Your task to perform on an android device: Open Amazon Image 0: 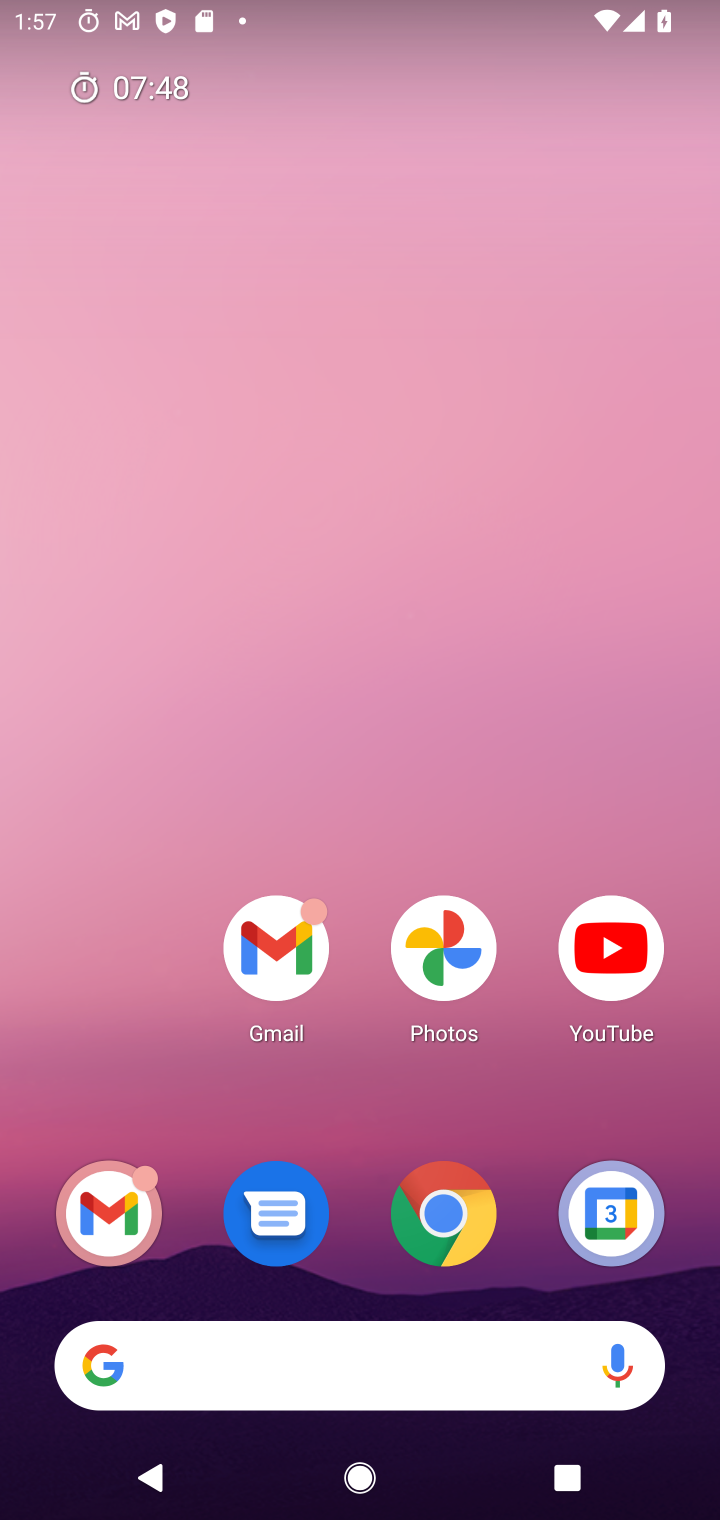
Step 0: drag from (470, 1361) to (419, 18)
Your task to perform on an android device: Open Amazon Image 1: 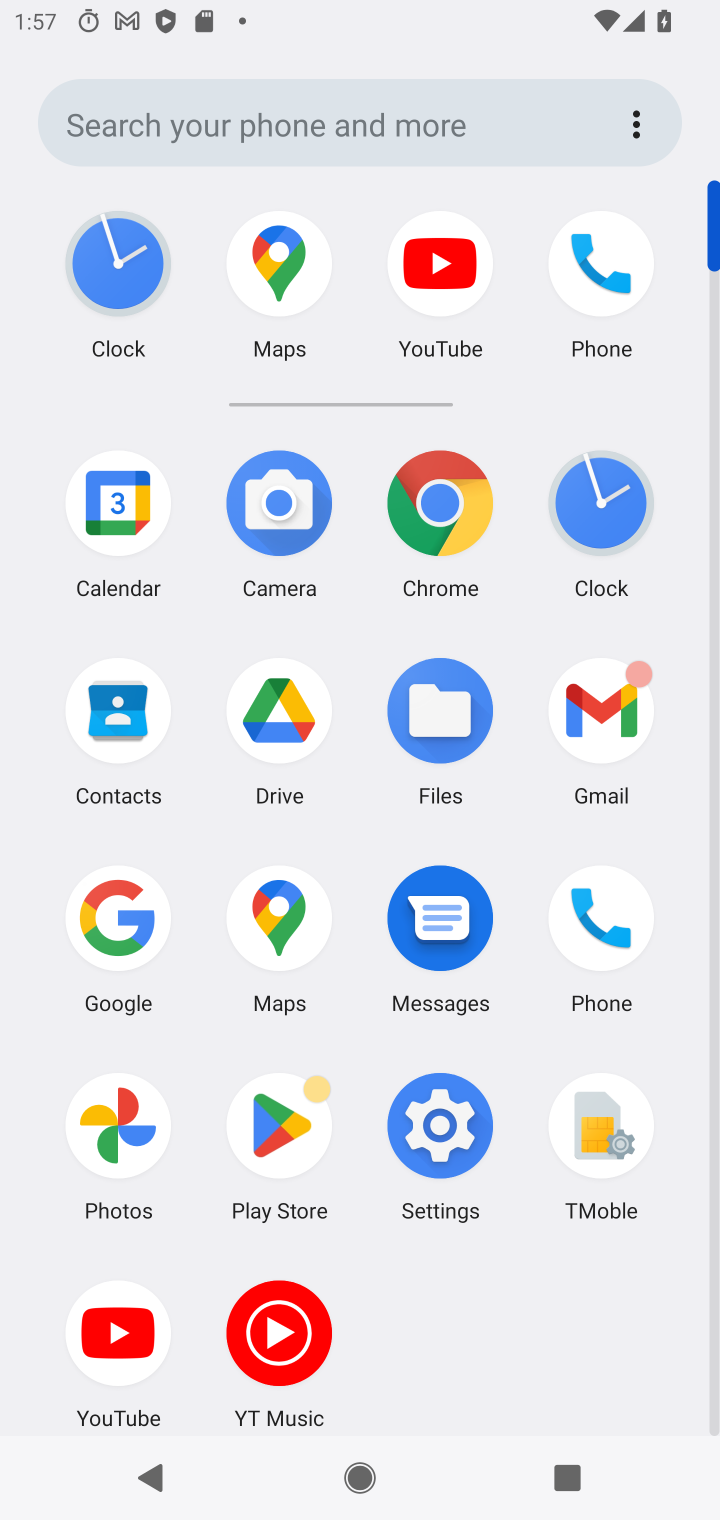
Step 1: click (417, 503)
Your task to perform on an android device: Open Amazon Image 2: 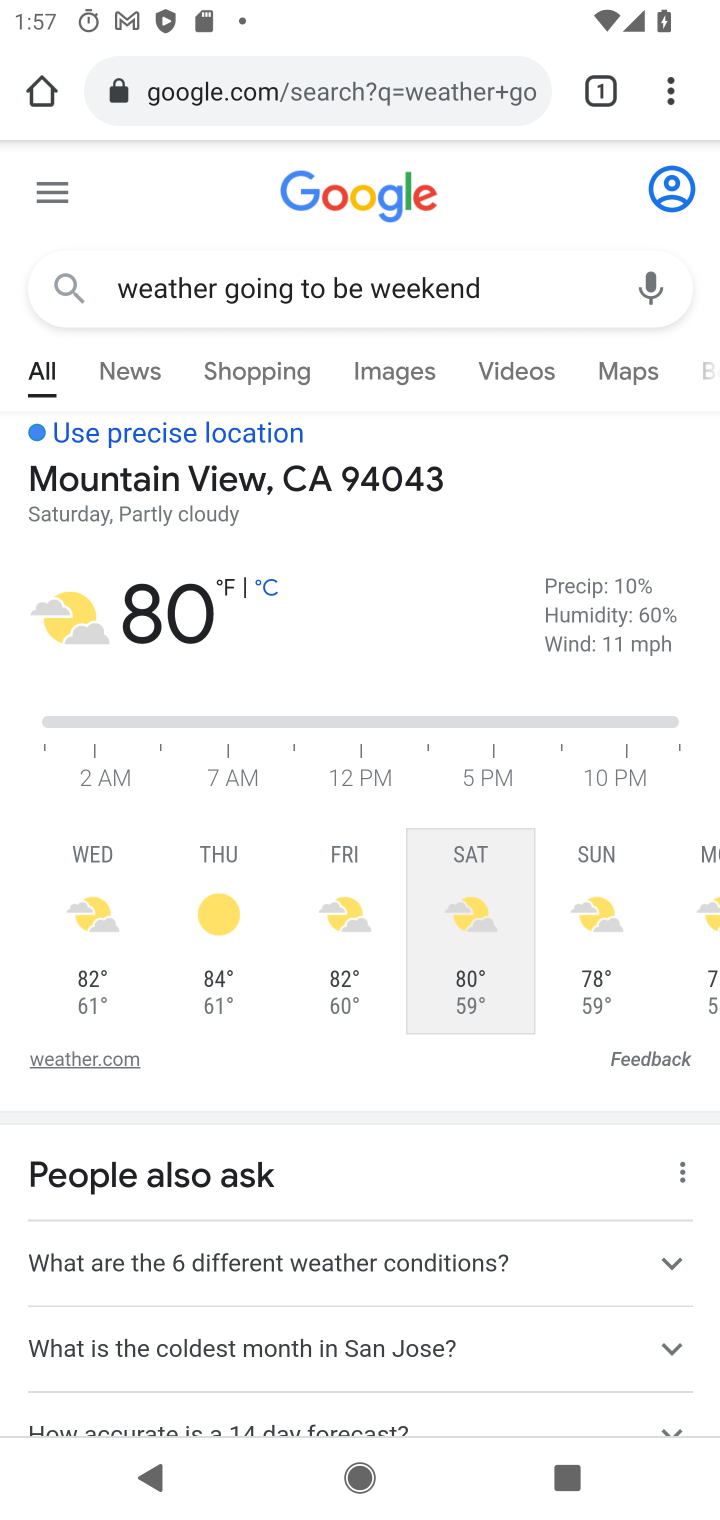
Step 2: drag from (662, 93) to (451, 275)
Your task to perform on an android device: Open Amazon Image 3: 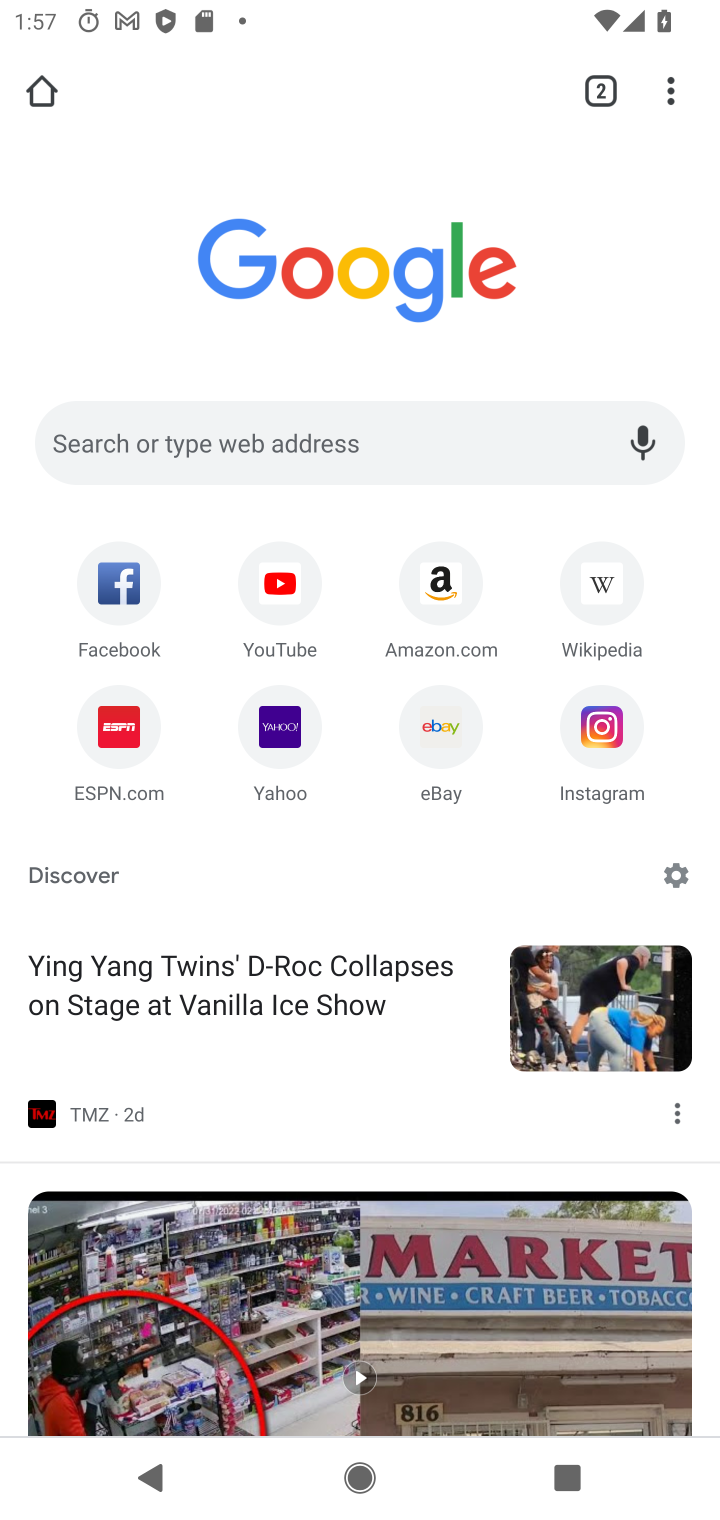
Step 3: click (451, 588)
Your task to perform on an android device: Open Amazon Image 4: 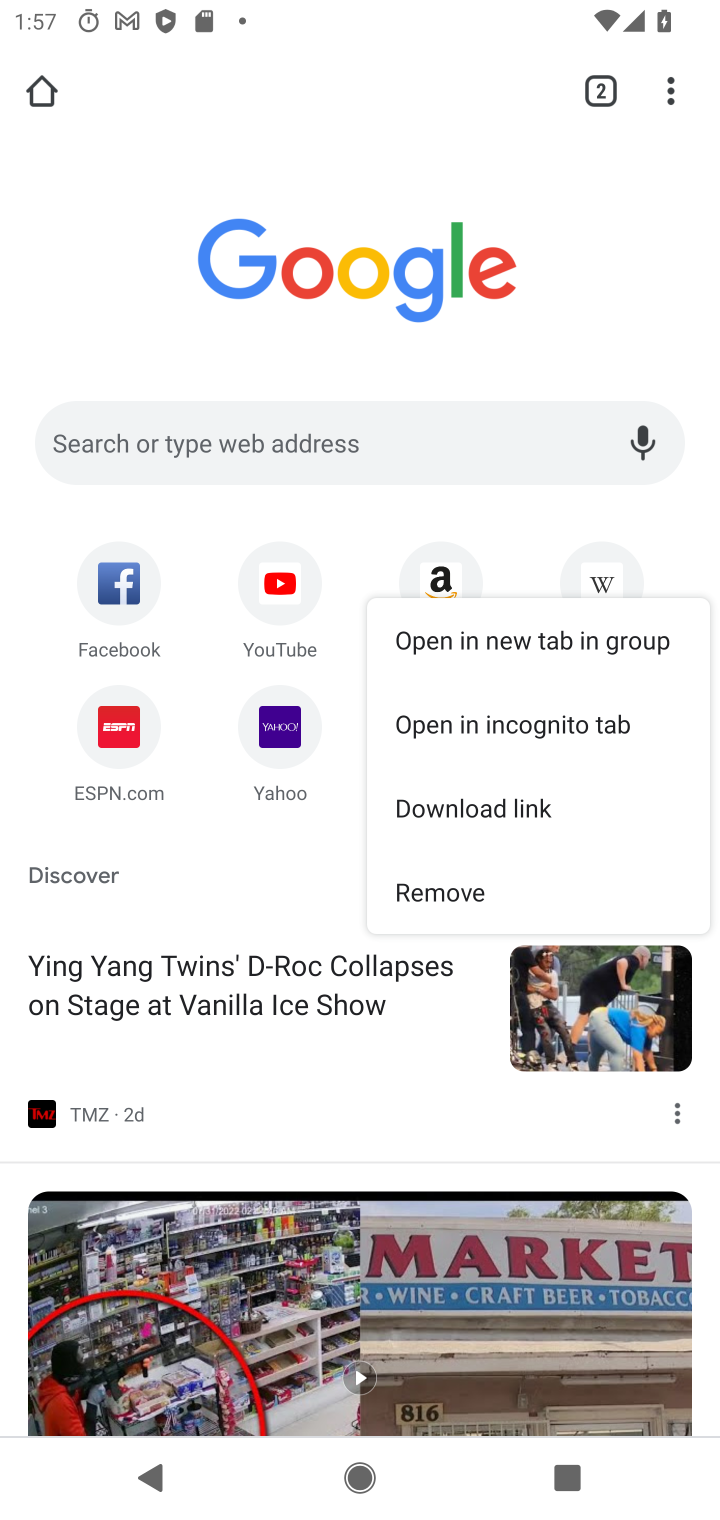
Step 4: click (452, 579)
Your task to perform on an android device: Open Amazon Image 5: 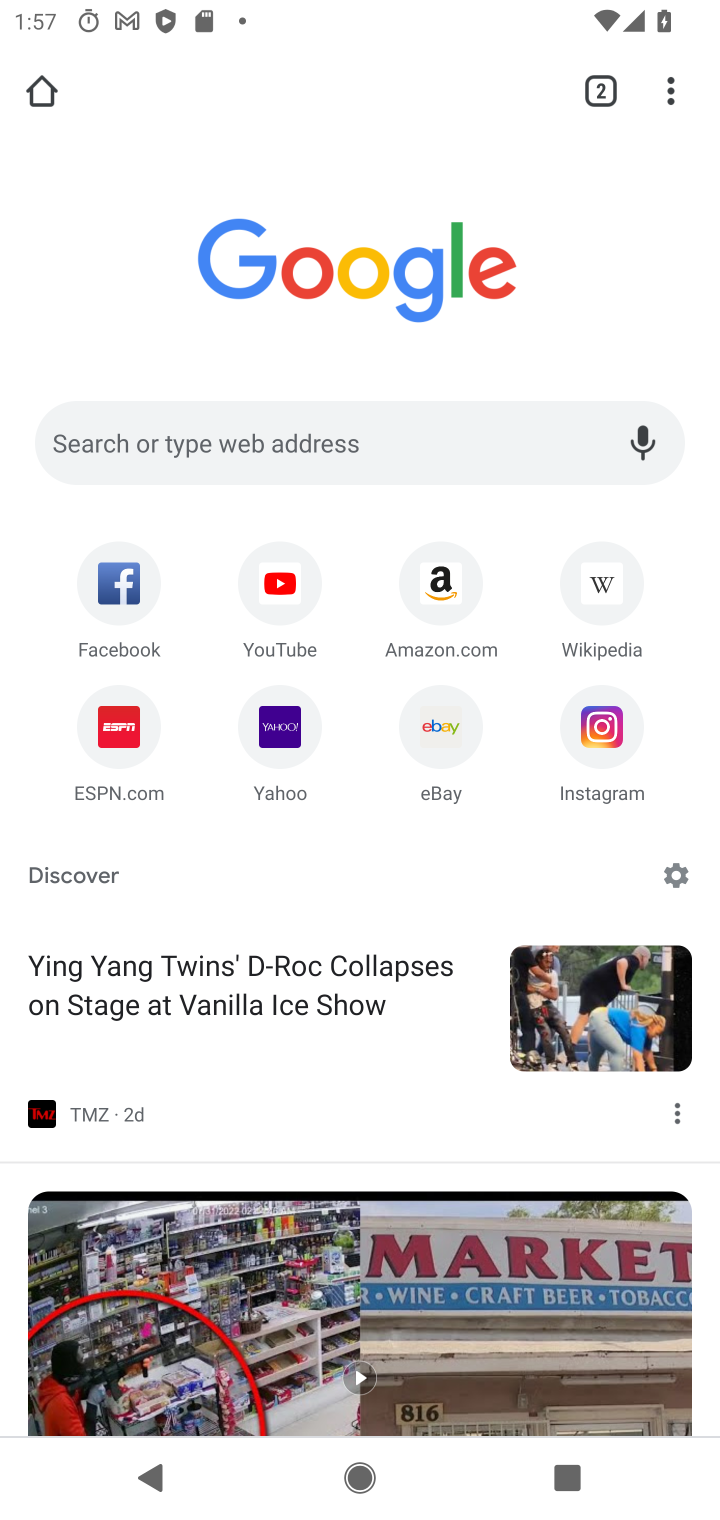
Step 5: click (452, 577)
Your task to perform on an android device: Open Amazon Image 6: 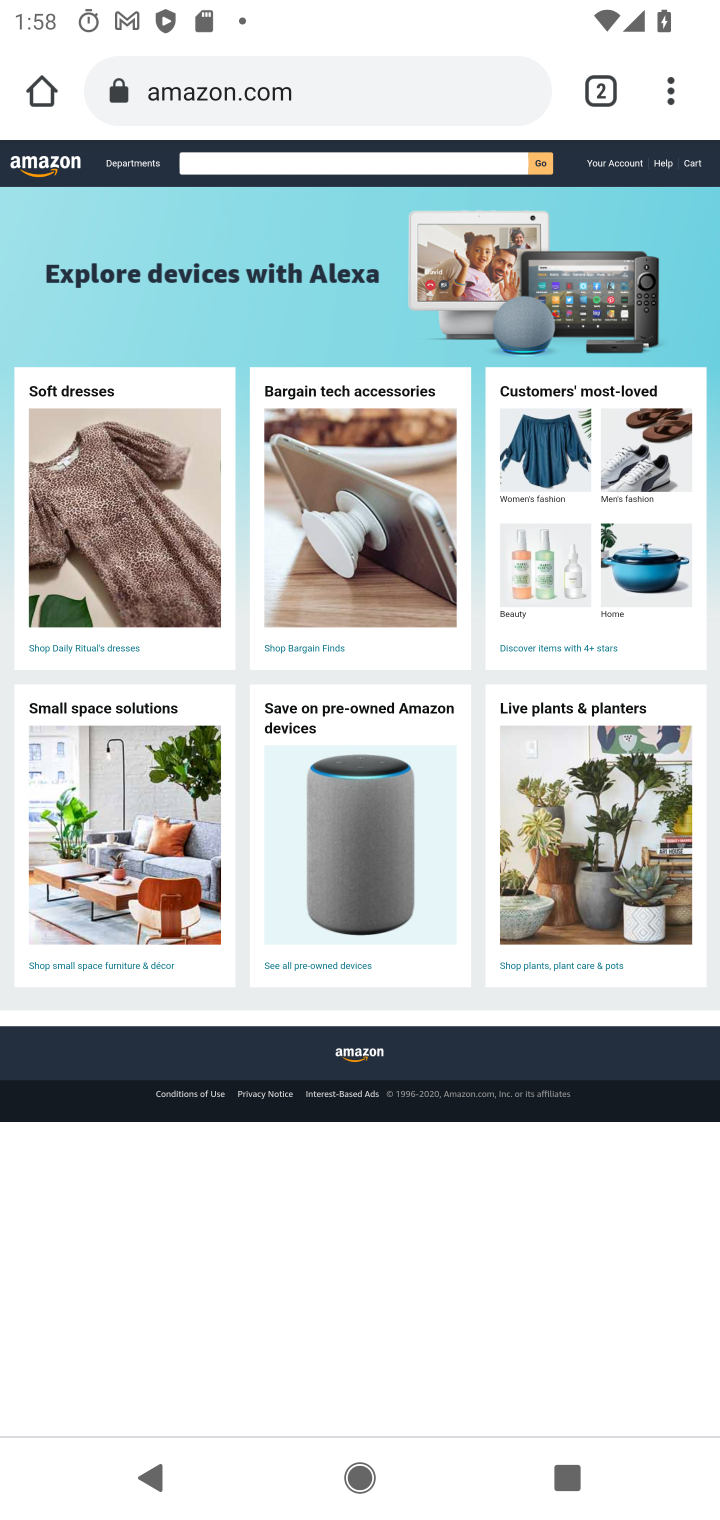
Step 6: task complete